Your task to perform on an android device: Open accessibility settings Image 0: 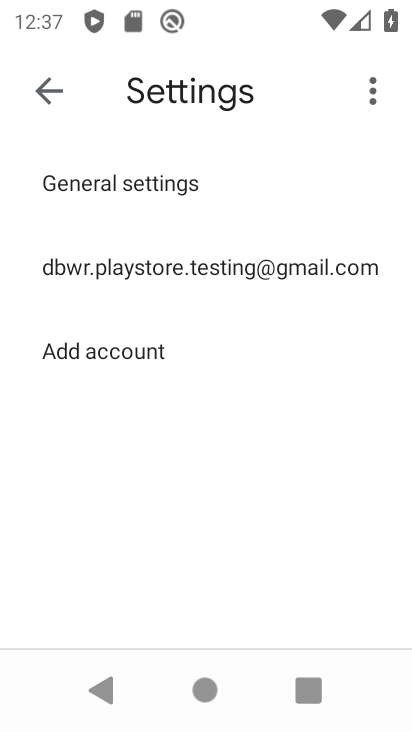
Step 0: press home button
Your task to perform on an android device: Open accessibility settings Image 1: 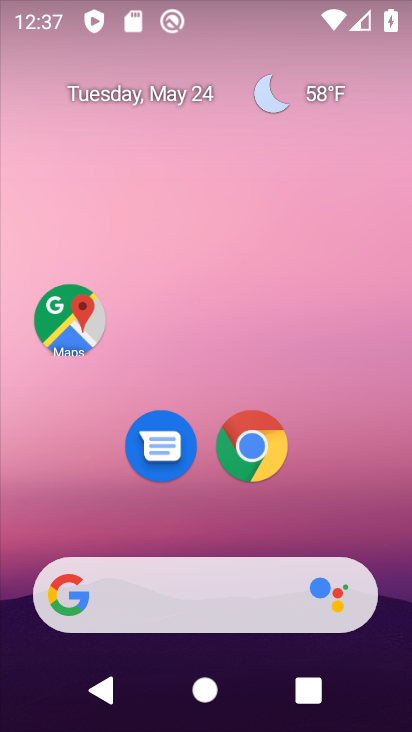
Step 1: drag from (222, 659) to (219, 126)
Your task to perform on an android device: Open accessibility settings Image 2: 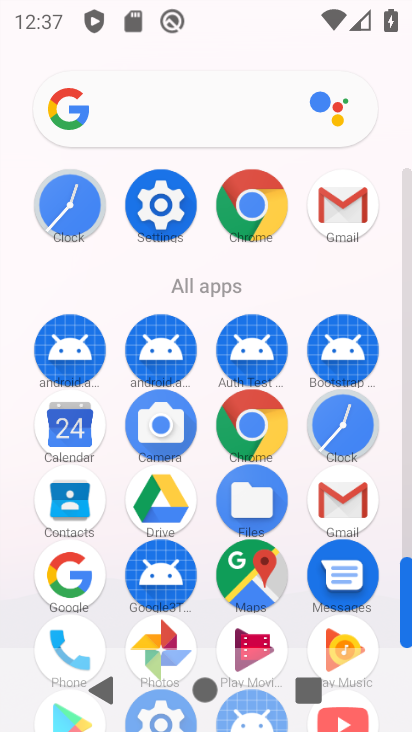
Step 2: click (165, 228)
Your task to perform on an android device: Open accessibility settings Image 3: 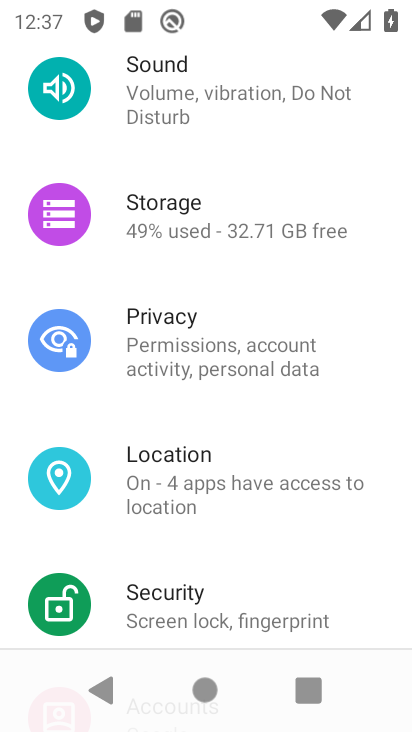
Step 3: drag from (219, 508) to (206, 149)
Your task to perform on an android device: Open accessibility settings Image 4: 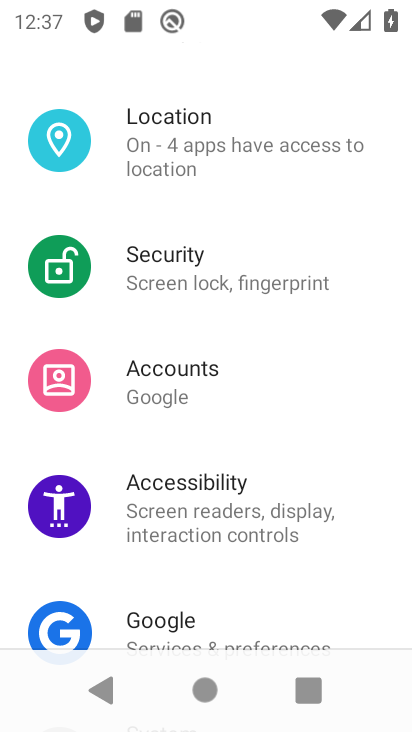
Step 4: click (211, 528)
Your task to perform on an android device: Open accessibility settings Image 5: 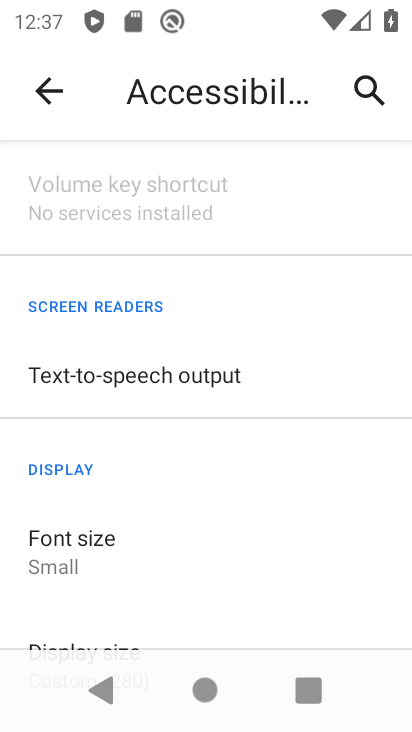
Step 5: task complete